Your task to perform on an android device: open a bookmark in the chrome app Image 0: 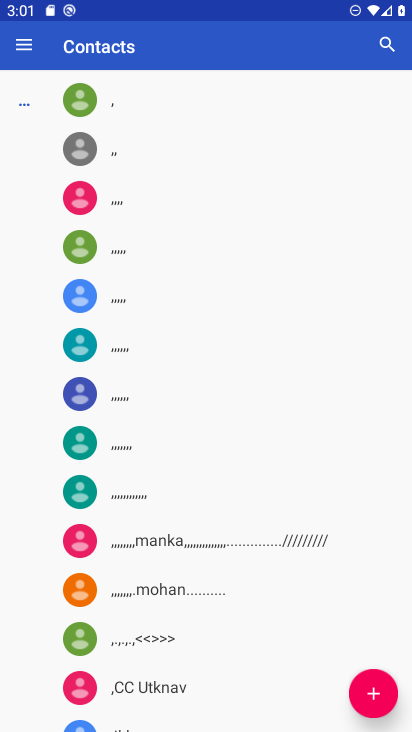
Step 0: press home button
Your task to perform on an android device: open a bookmark in the chrome app Image 1: 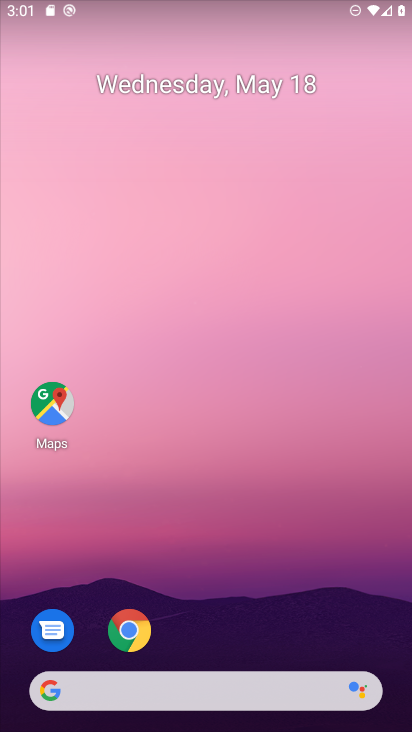
Step 1: click (115, 627)
Your task to perform on an android device: open a bookmark in the chrome app Image 2: 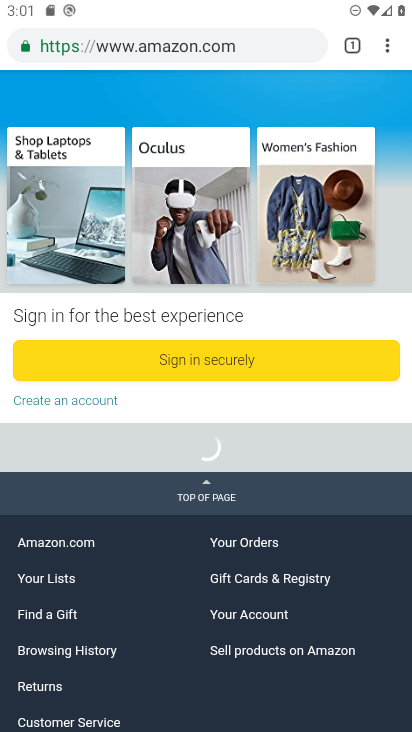
Step 2: click (396, 29)
Your task to perform on an android device: open a bookmark in the chrome app Image 3: 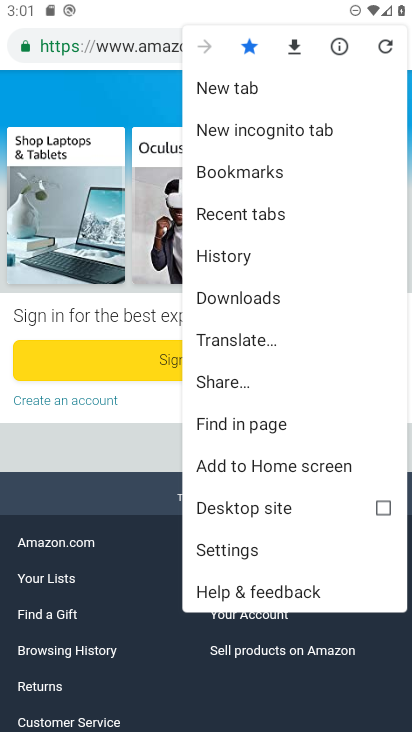
Step 3: click (282, 170)
Your task to perform on an android device: open a bookmark in the chrome app Image 4: 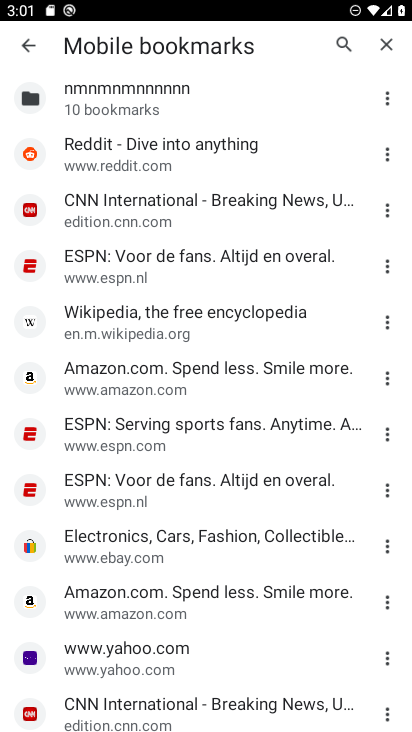
Step 4: click (135, 376)
Your task to perform on an android device: open a bookmark in the chrome app Image 5: 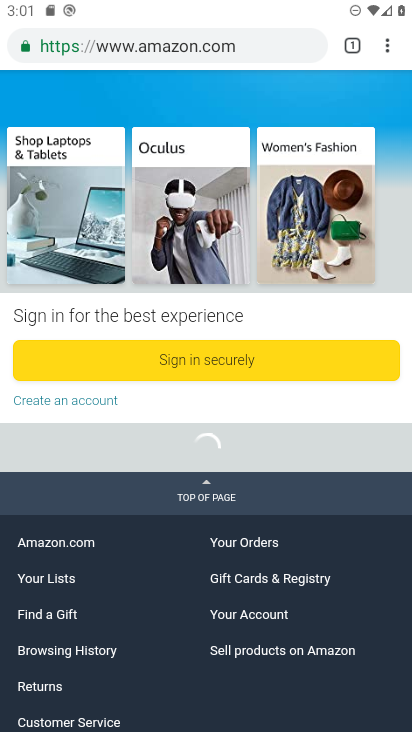
Step 5: click (391, 36)
Your task to perform on an android device: open a bookmark in the chrome app Image 6: 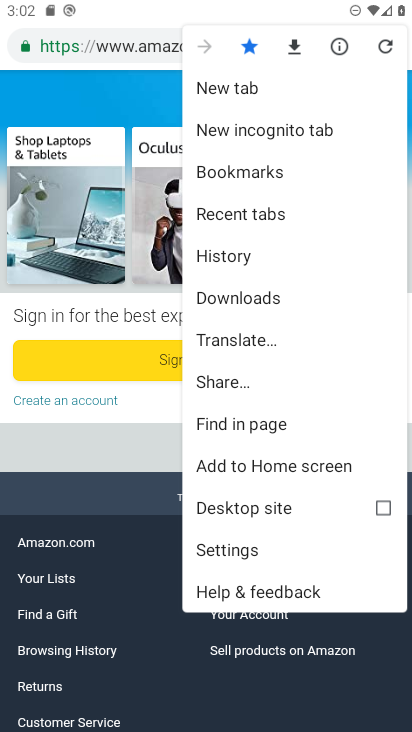
Step 6: click (268, 554)
Your task to perform on an android device: open a bookmark in the chrome app Image 7: 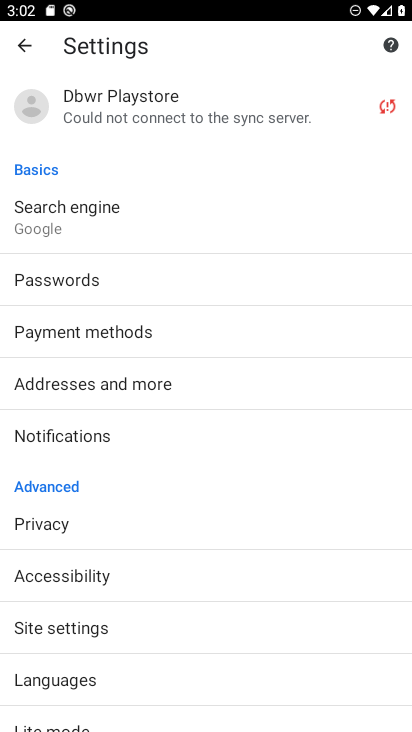
Step 7: click (33, 39)
Your task to perform on an android device: open a bookmark in the chrome app Image 8: 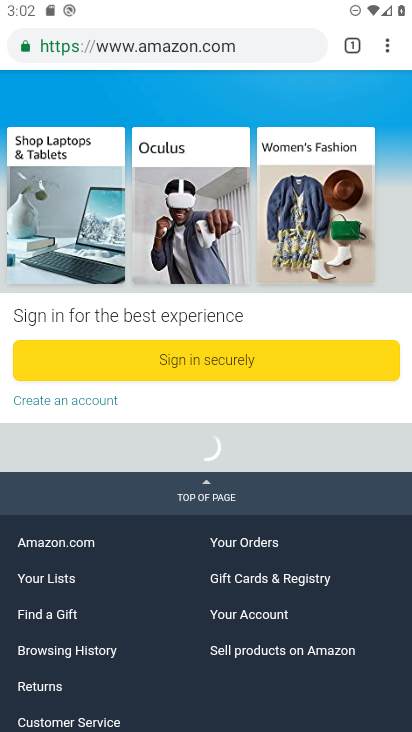
Step 8: click (388, 49)
Your task to perform on an android device: open a bookmark in the chrome app Image 9: 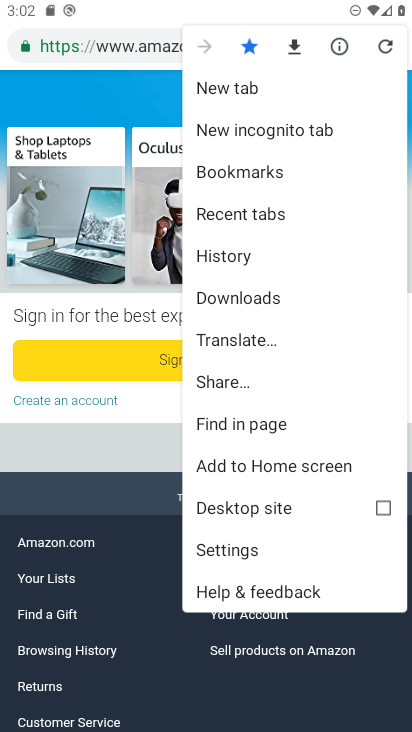
Step 9: click (251, 180)
Your task to perform on an android device: open a bookmark in the chrome app Image 10: 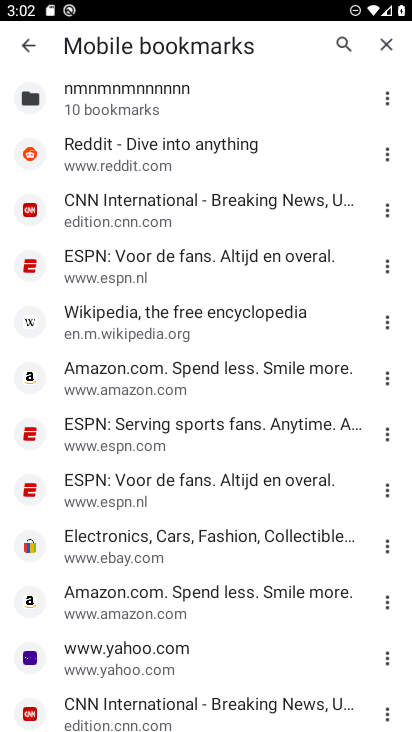
Step 10: task complete